Your task to perform on an android device: see tabs open on other devices in the chrome app Image 0: 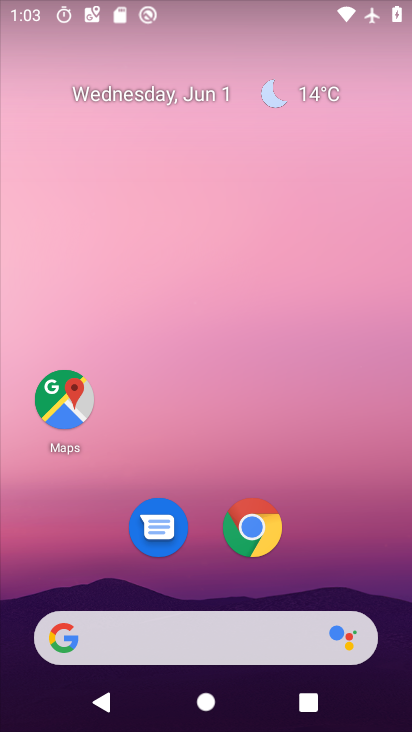
Step 0: click (266, 537)
Your task to perform on an android device: see tabs open on other devices in the chrome app Image 1: 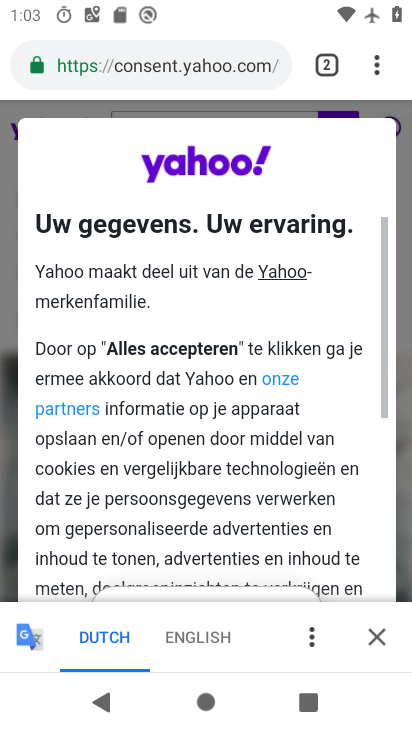
Step 1: click (380, 66)
Your task to perform on an android device: see tabs open on other devices in the chrome app Image 2: 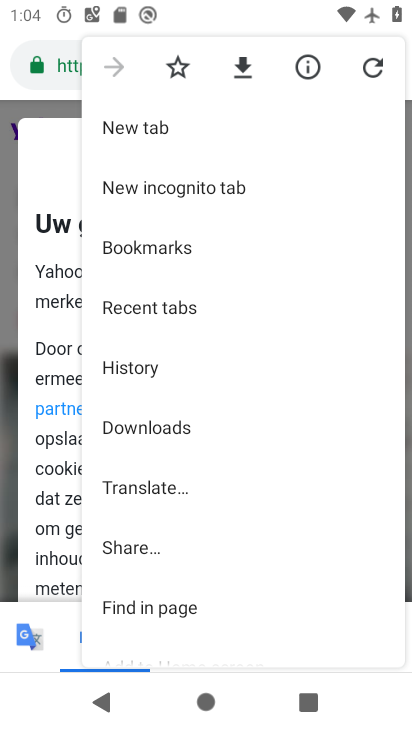
Step 2: click (160, 311)
Your task to perform on an android device: see tabs open on other devices in the chrome app Image 3: 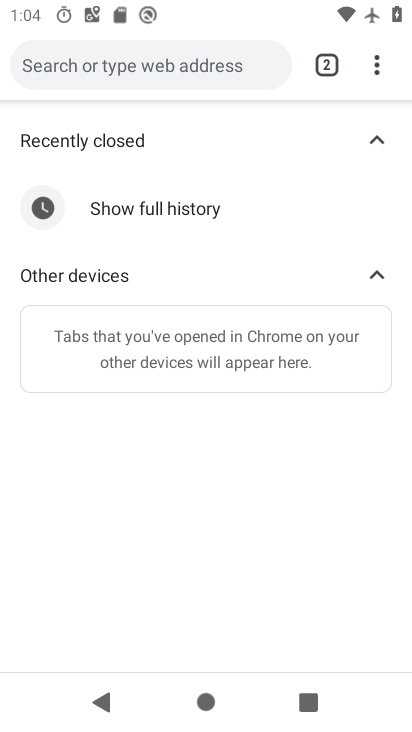
Step 3: task complete